Your task to perform on an android device: Play the last video I watched on Youtube Image 0: 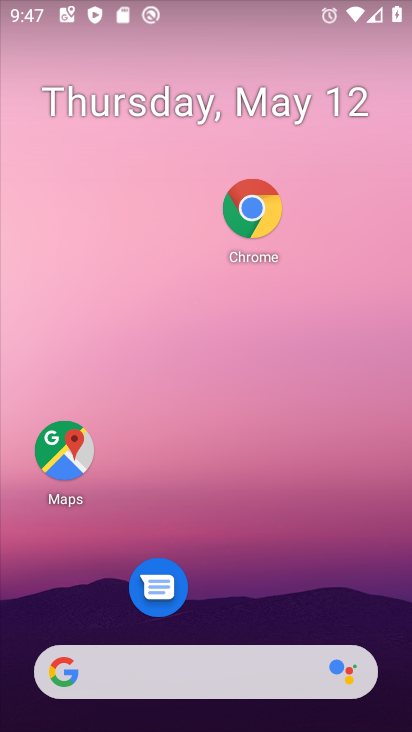
Step 0: drag from (303, 601) to (288, 39)
Your task to perform on an android device: Play the last video I watched on Youtube Image 1: 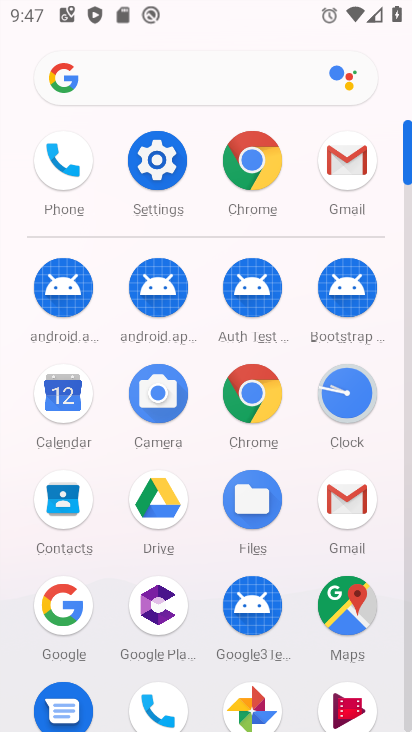
Step 1: drag from (184, 571) to (256, 139)
Your task to perform on an android device: Play the last video I watched on Youtube Image 2: 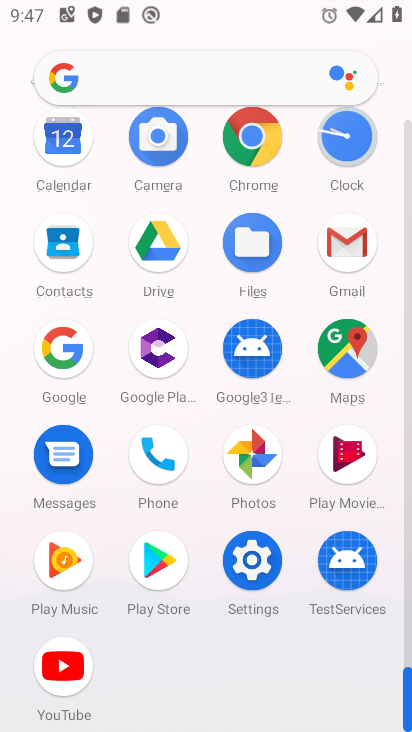
Step 2: click (58, 650)
Your task to perform on an android device: Play the last video I watched on Youtube Image 3: 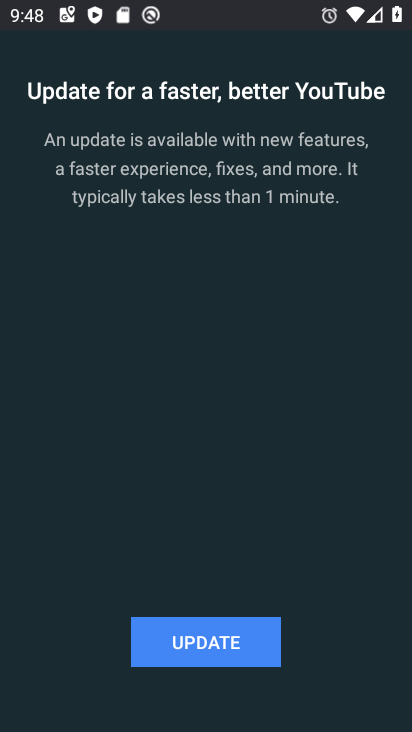
Step 3: task complete